Your task to perform on an android device: toggle priority inbox in the gmail app Image 0: 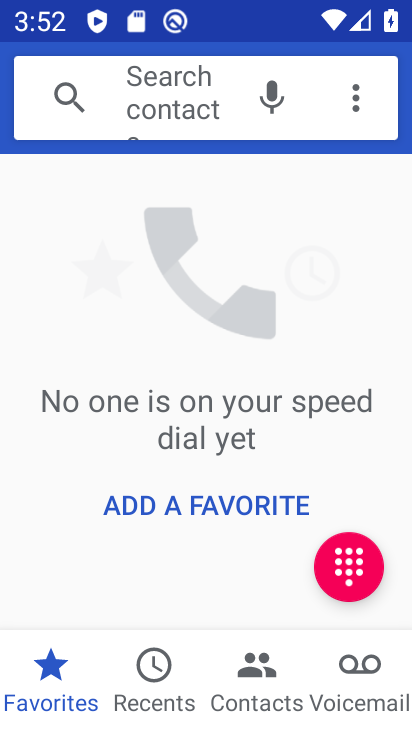
Step 0: press home button
Your task to perform on an android device: toggle priority inbox in the gmail app Image 1: 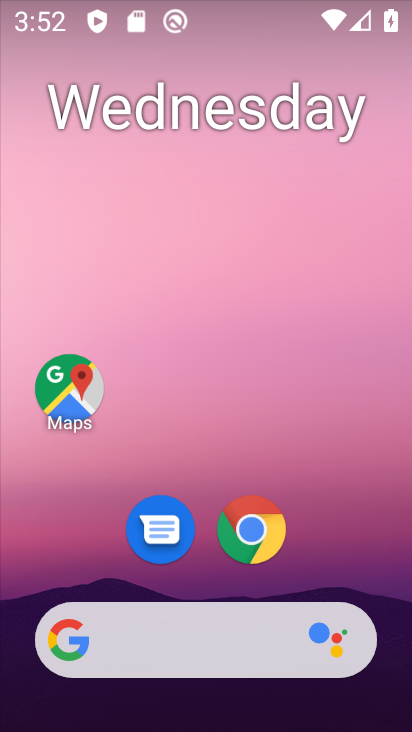
Step 1: drag from (360, 525) to (361, 184)
Your task to perform on an android device: toggle priority inbox in the gmail app Image 2: 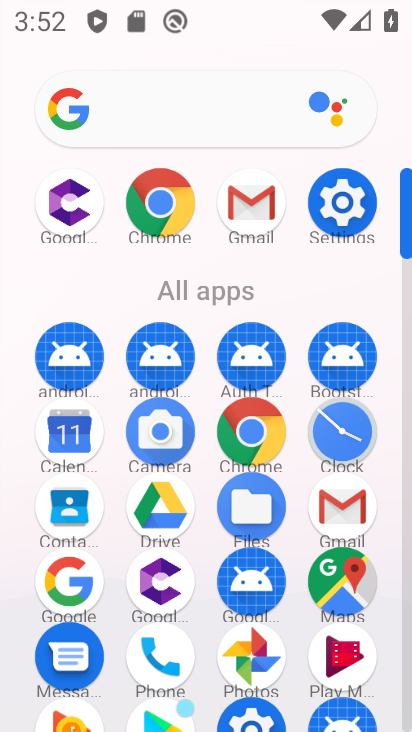
Step 2: click (256, 215)
Your task to perform on an android device: toggle priority inbox in the gmail app Image 3: 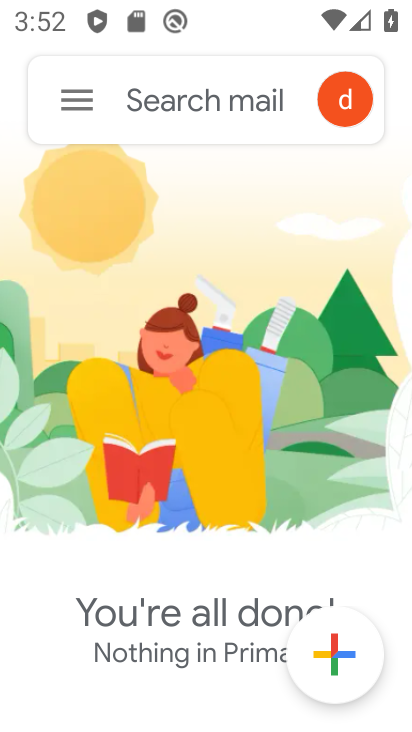
Step 3: click (70, 106)
Your task to perform on an android device: toggle priority inbox in the gmail app Image 4: 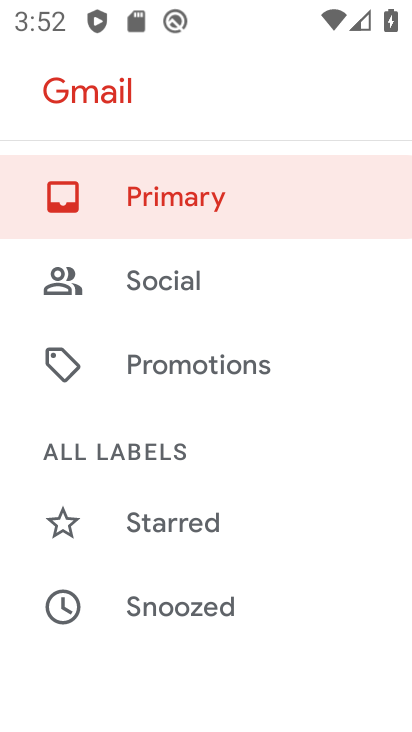
Step 4: drag from (243, 589) to (293, 224)
Your task to perform on an android device: toggle priority inbox in the gmail app Image 5: 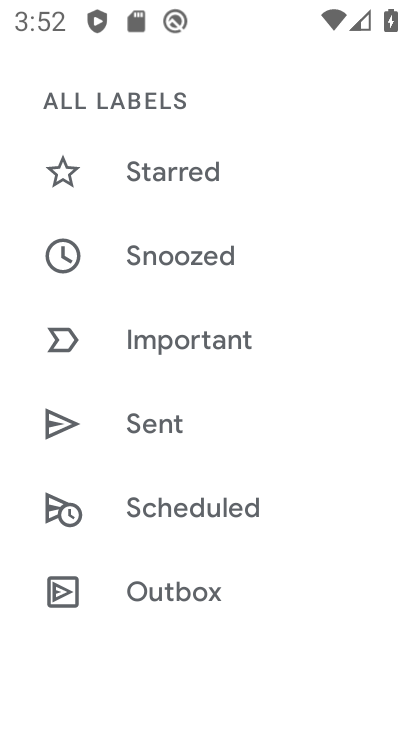
Step 5: drag from (272, 608) to (323, 277)
Your task to perform on an android device: toggle priority inbox in the gmail app Image 6: 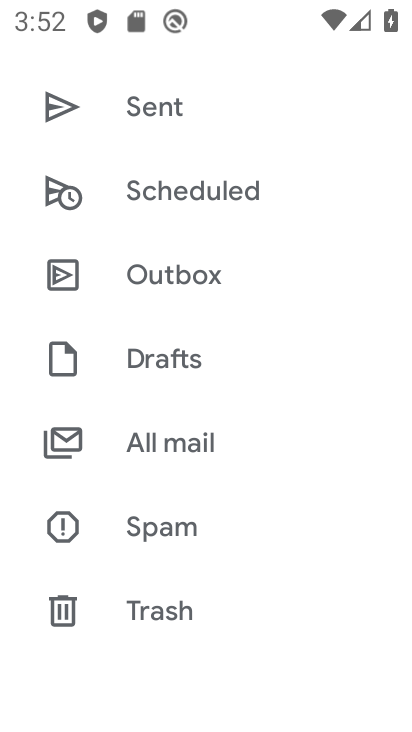
Step 6: drag from (258, 595) to (296, 228)
Your task to perform on an android device: toggle priority inbox in the gmail app Image 7: 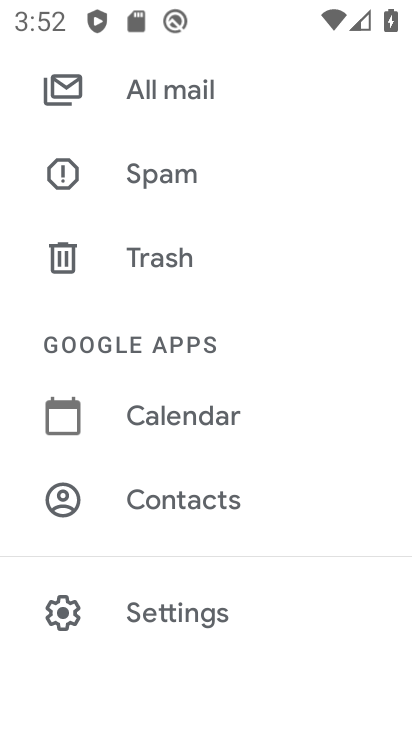
Step 7: click (180, 605)
Your task to perform on an android device: toggle priority inbox in the gmail app Image 8: 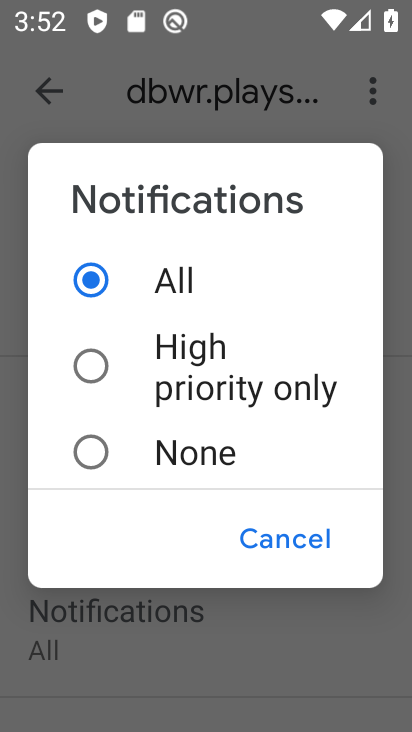
Step 8: click (253, 376)
Your task to perform on an android device: toggle priority inbox in the gmail app Image 9: 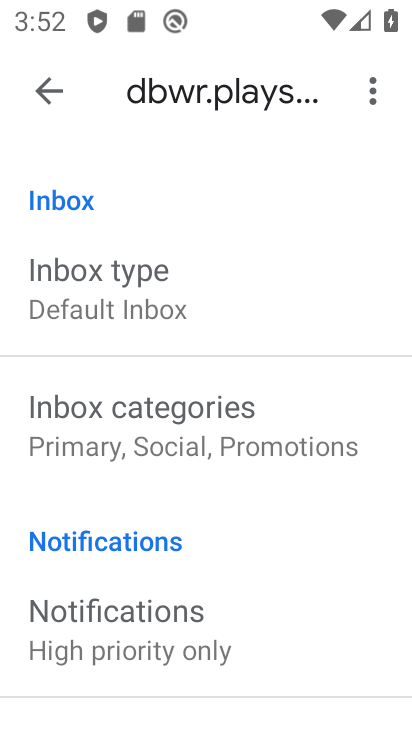
Step 9: task complete